Your task to perform on an android device: Open Wikipedia Image 0: 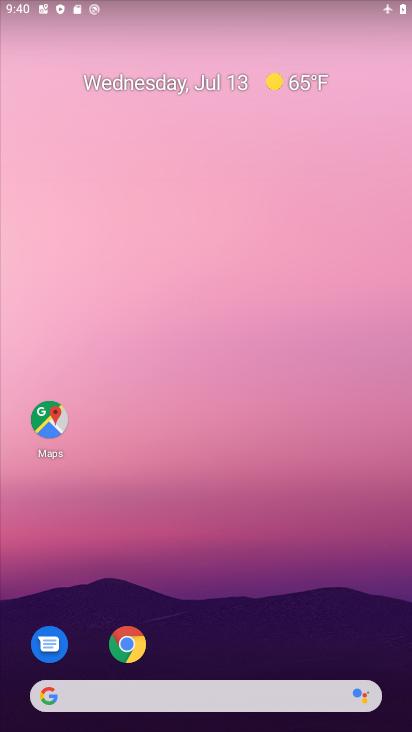
Step 0: drag from (238, 611) to (386, 39)
Your task to perform on an android device: Open Wikipedia Image 1: 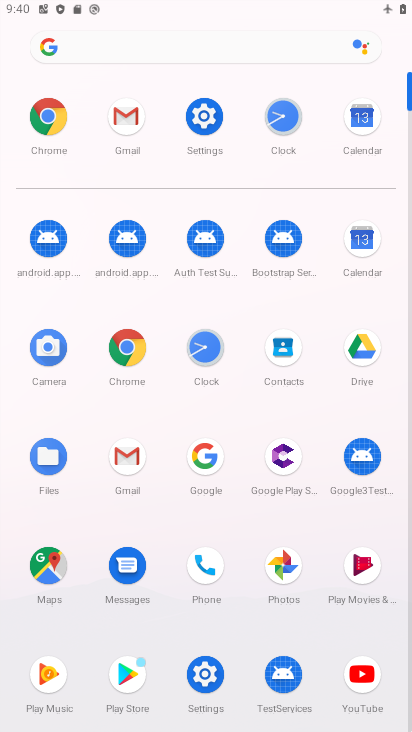
Step 1: click (48, 110)
Your task to perform on an android device: Open Wikipedia Image 2: 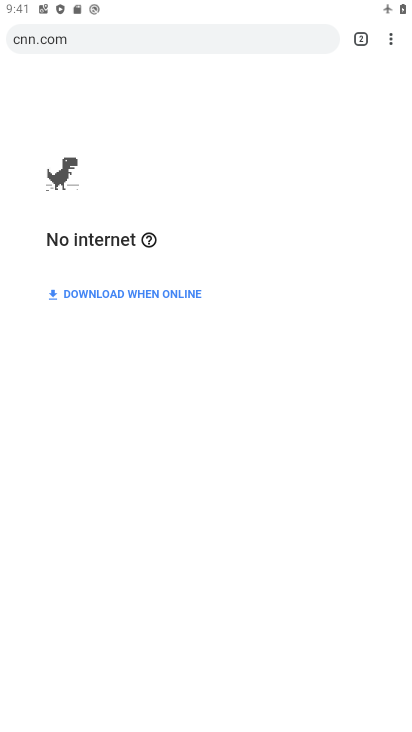
Step 2: task complete